Your task to perform on an android device: change alarm snooze length Image 0: 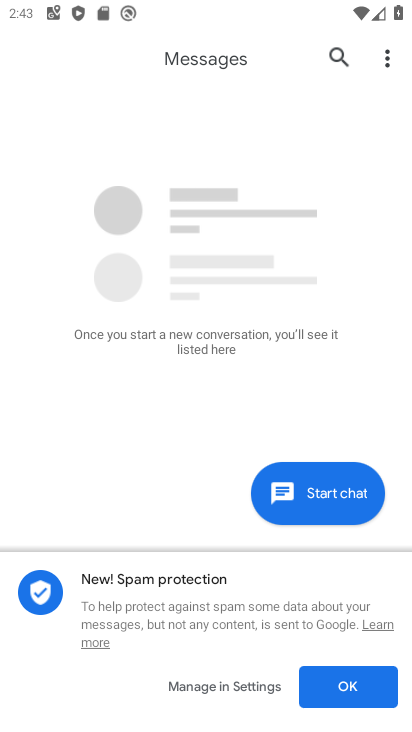
Step 0: press home button
Your task to perform on an android device: change alarm snooze length Image 1: 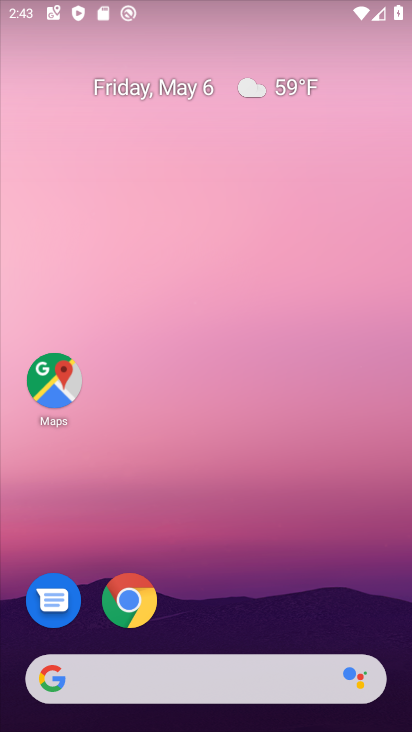
Step 1: drag from (218, 568) to (265, 95)
Your task to perform on an android device: change alarm snooze length Image 2: 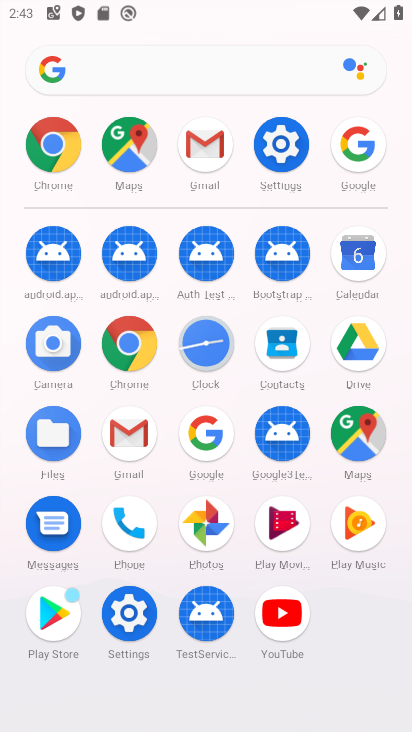
Step 2: click (209, 344)
Your task to perform on an android device: change alarm snooze length Image 3: 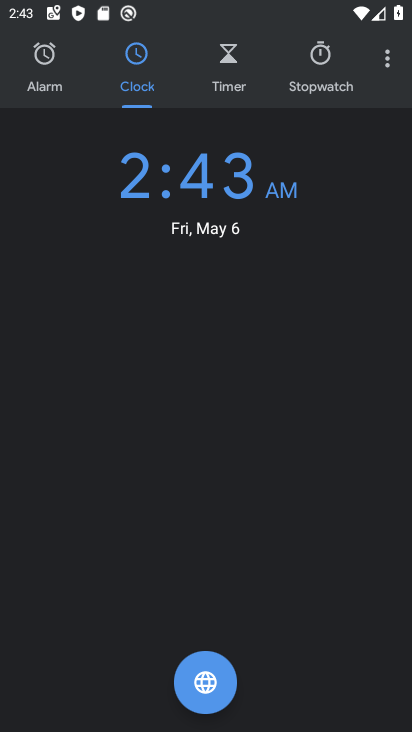
Step 3: click (381, 62)
Your task to perform on an android device: change alarm snooze length Image 4: 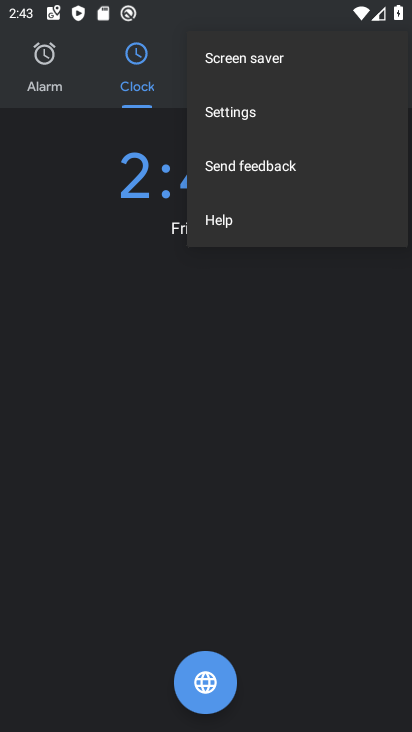
Step 4: click (249, 122)
Your task to perform on an android device: change alarm snooze length Image 5: 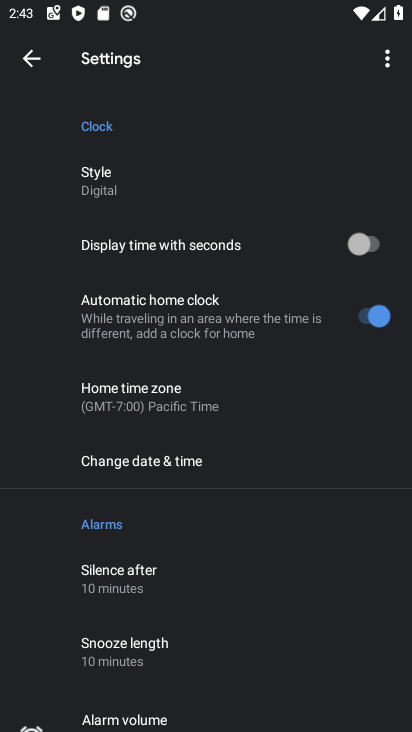
Step 5: drag from (226, 623) to (215, 361)
Your task to perform on an android device: change alarm snooze length Image 6: 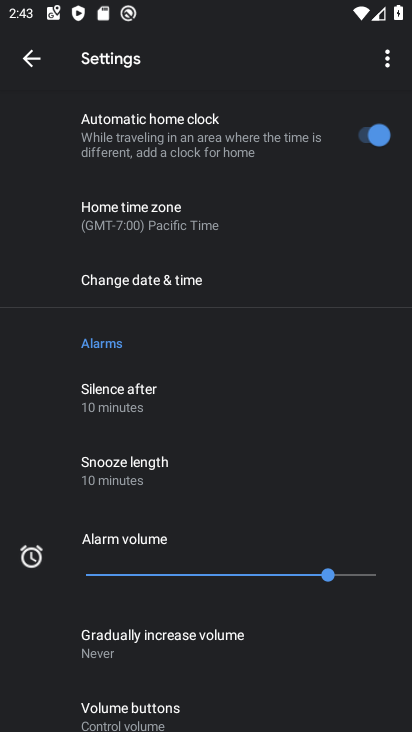
Step 6: drag from (208, 661) to (209, 433)
Your task to perform on an android device: change alarm snooze length Image 7: 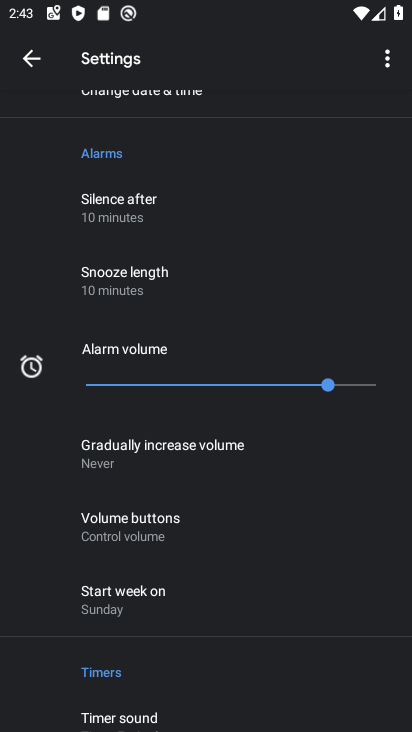
Step 7: drag from (241, 589) to (282, 702)
Your task to perform on an android device: change alarm snooze length Image 8: 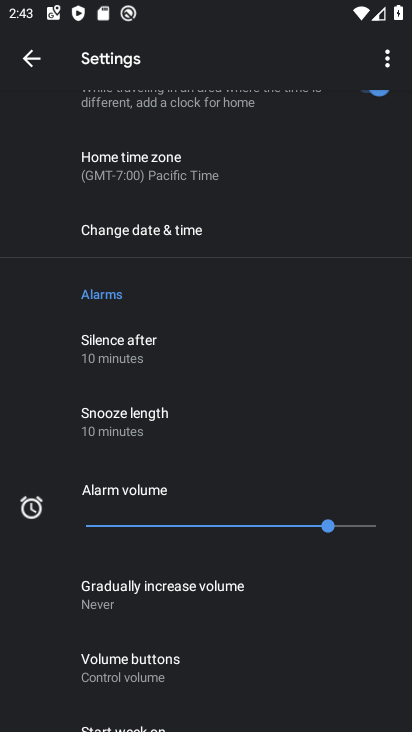
Step 8: click (123, 423)
Your task to perform on an android device: change alarm snooze length Image 9: 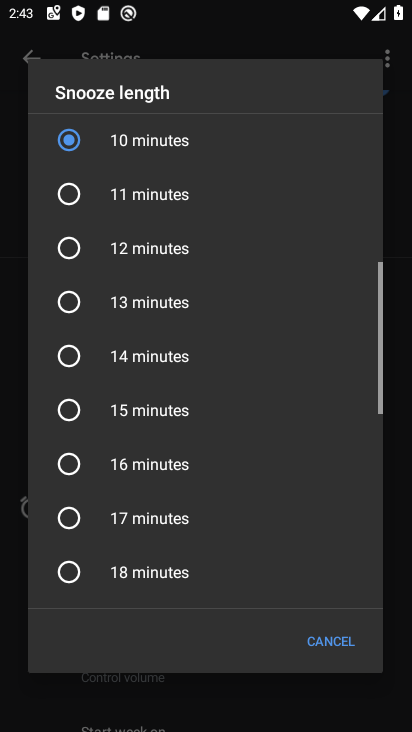
Step 9: click (65, 256)
Your task to perform on an android device: change alarm snooze length Image 10: 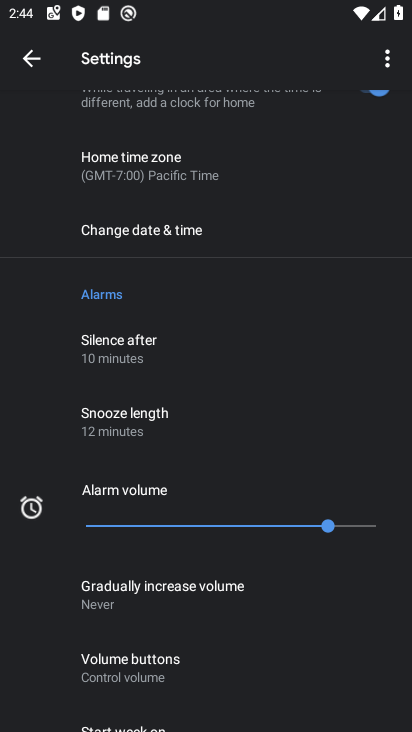
Step 10: task complete